Your task to perform on an android device: choose inbox layout in the gmail app Image 0: 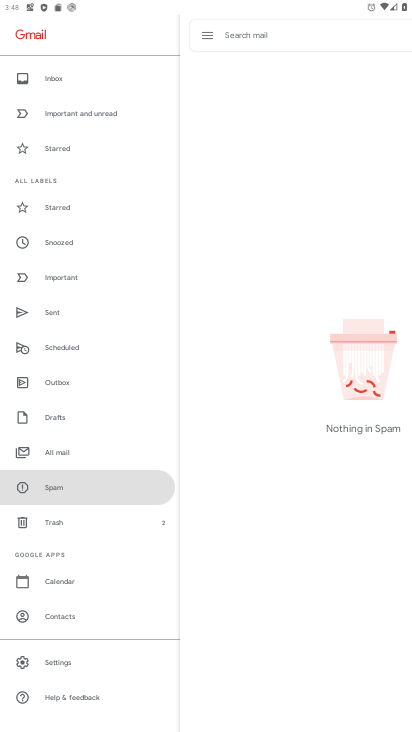
Step 0: click (51, 666)
Your task to perform on an android device: choose inbox layout in the gmail app Image 1: 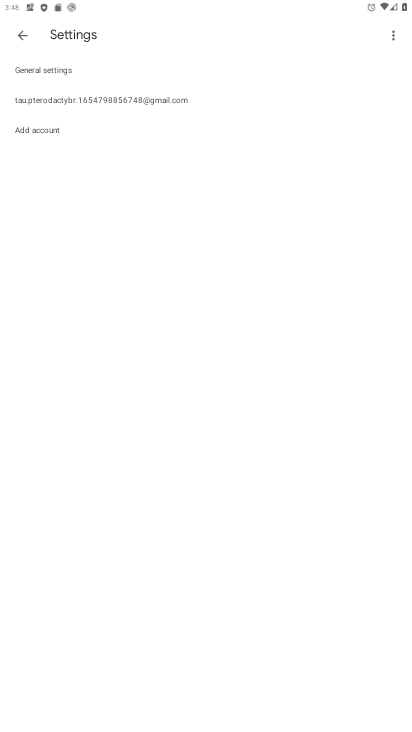
Step 1: click (170, 99)
Your task to perform on an android device: choose inbox layout in the gmail app Image 2: 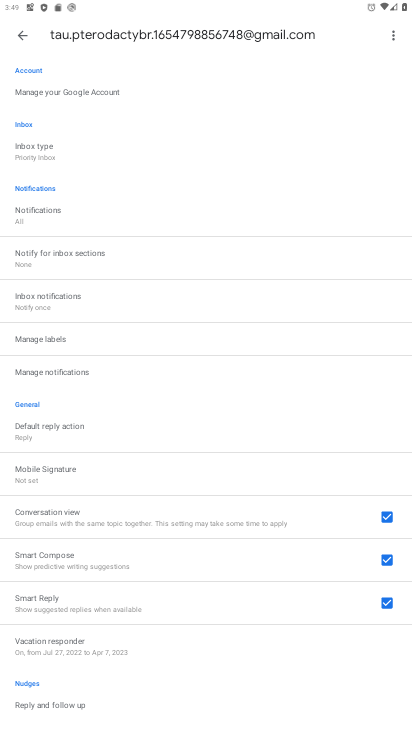
Step 2: click (32, 145)
Your task to perform on an android device: choose inbox layout in the gmail app Image 3: 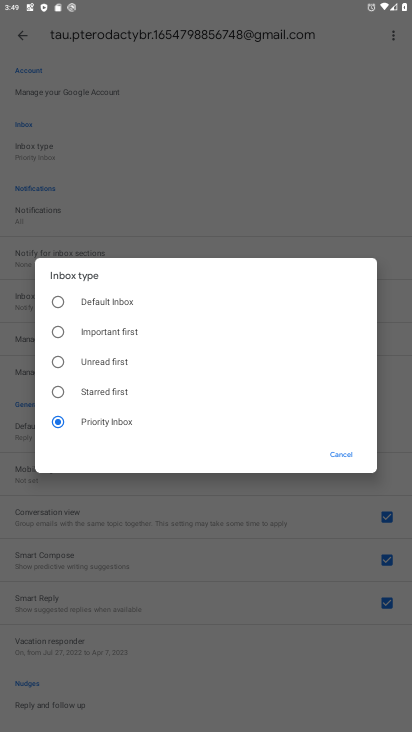
Step 3: click (90, 298)
Your task to perform on an android device: choose inbox layout in the gmail app Image 4: 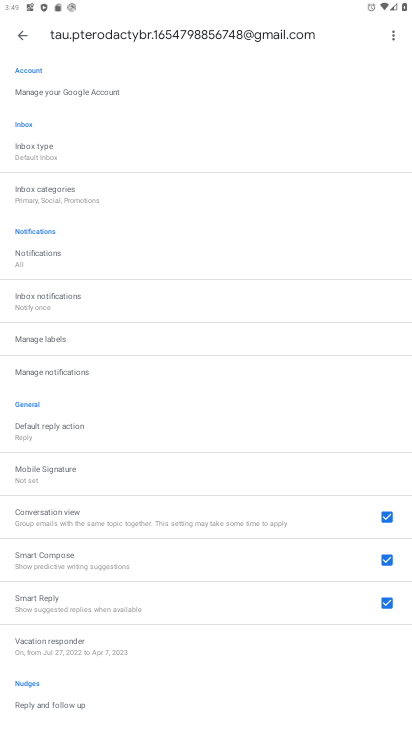
Step 4: task complete